Your task to perform on an android device: Open Android settings Image 0: 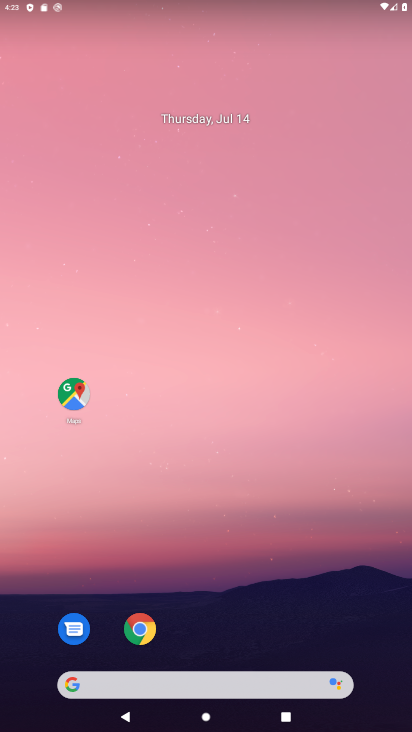
Step 0: drag from (232, 664) to (260, 205)
Your task to perform on an android device: Open Android settings Image 1: 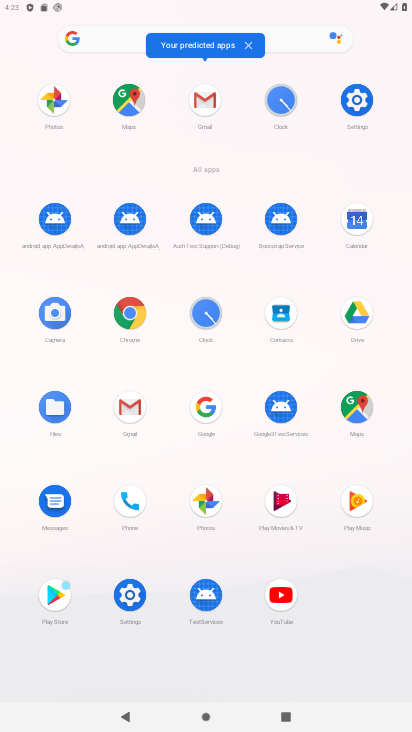
Step 1: click (125, 587)
Your task to perform on an android device: Open Android settings Image 2: 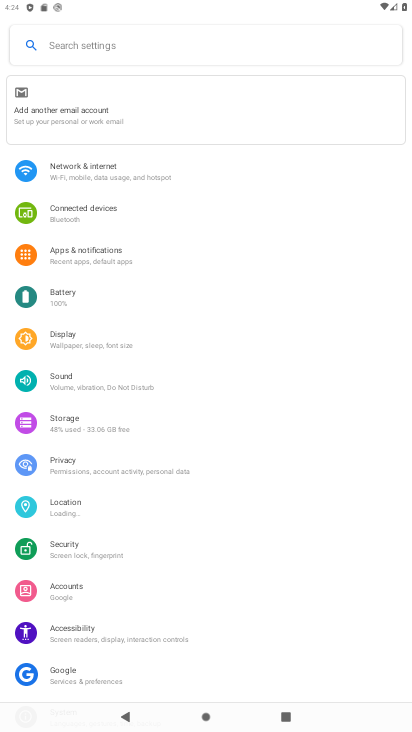
Step 2: task complete